Your task to perform on an android device: Go to privacy settings Image 0: 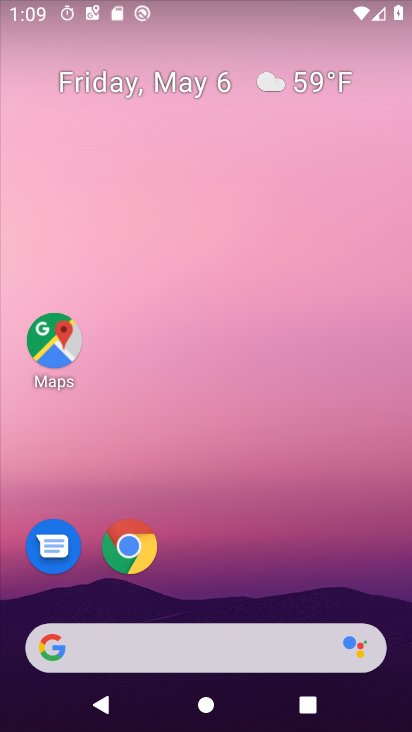
Step 0: drag from (247, 513) to (258, 118)
Your task to perform on an android device: Go to privacy settings Image 1: 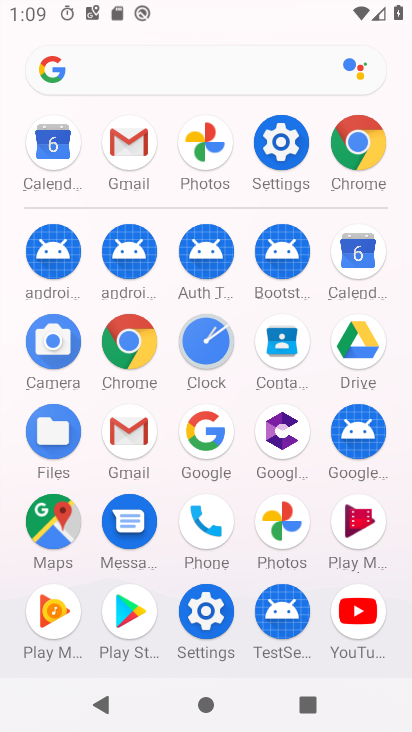
Step 1: click (275, 141)
Your task to perform on an android device: Go to privacy settings Image 2: 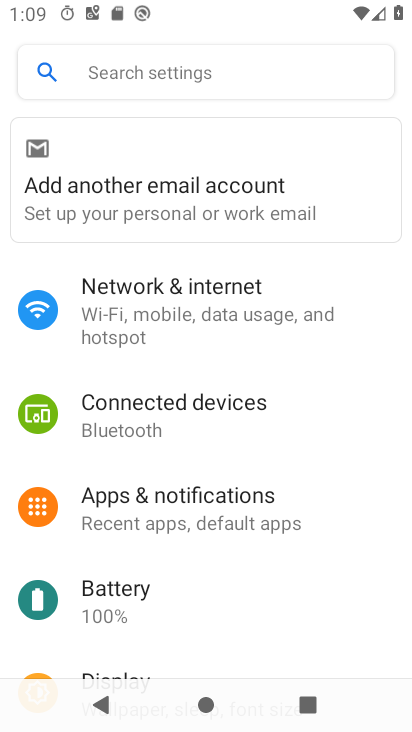
Step 2: drag from (229, 616) to (274, 216)
Your task to perform on an android device: Go to privacy settings Image 3: 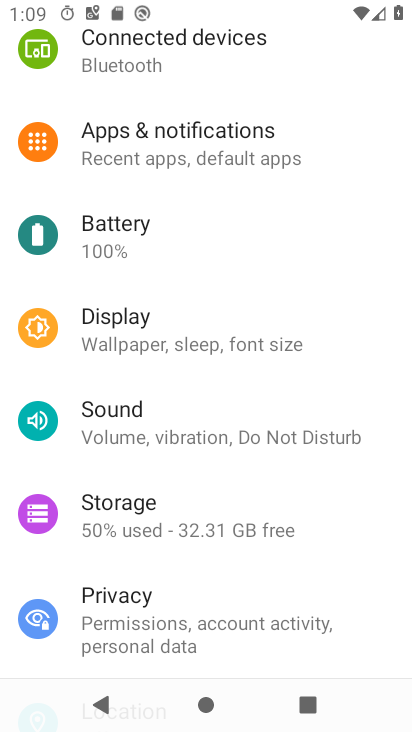
Step 3: click (195, 620)
Your task to perform on an android device: Go to privacy settings Image 4: 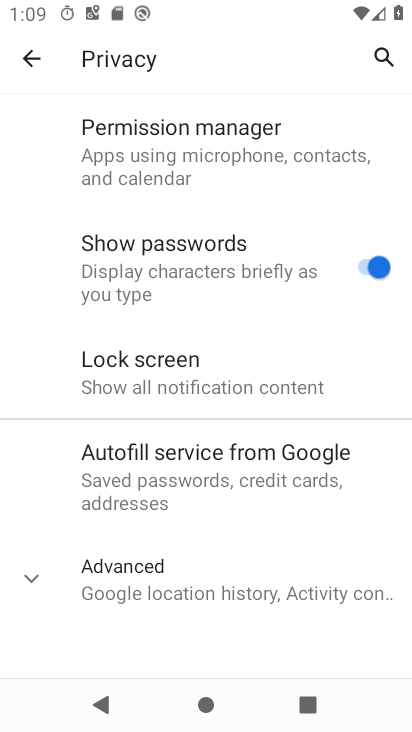
Step 4: task complete